Your task to perform on an android device: see sites visited before in the chrome app Image 0: 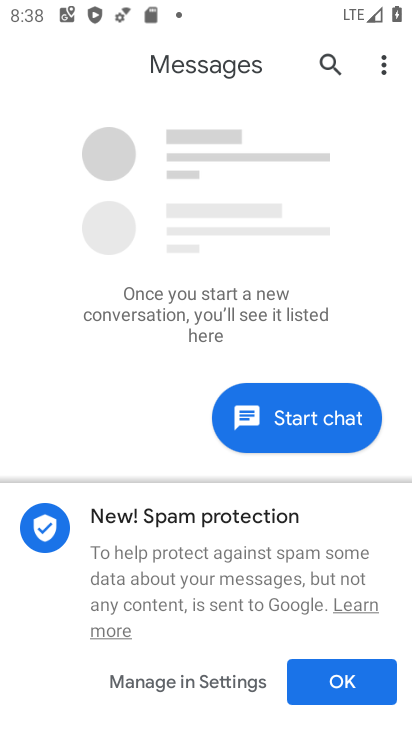
Step 0: press home button
Your task to perform on an android device: see sites visited before in the chrome app Image 1: 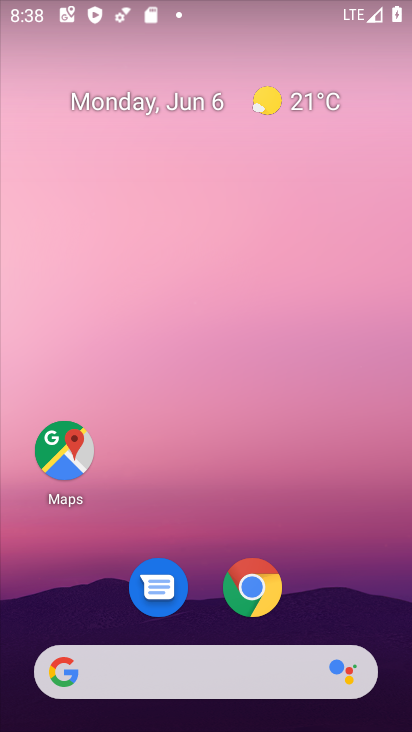
Step 1: click (272, 597)
Your task to perform on an android device: see sites visited before in the chrome app Image 2: 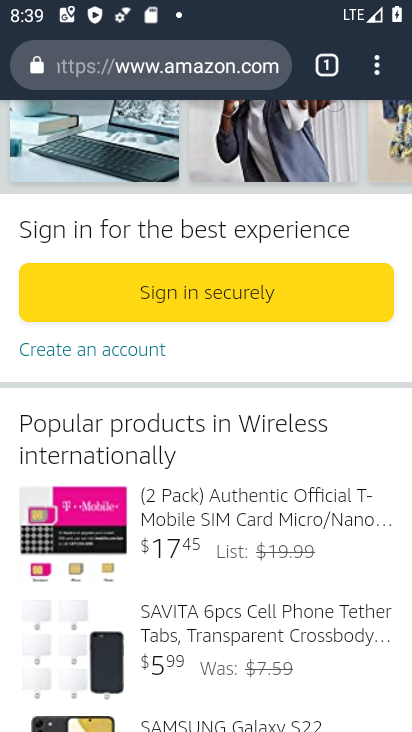
Step 2: click (380, 65)
Your task to perform on an android device: see sites visited before in the chrome app Image 3: 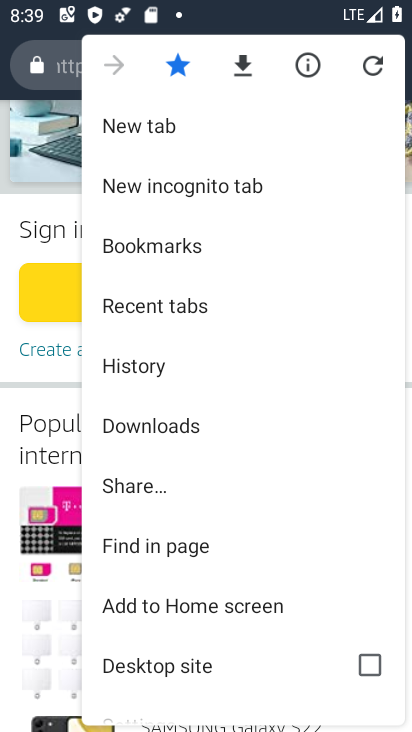
Step 3: click (182, 301)
Your task to perform on an android device: see sites visited before in the chrome app Image 4: 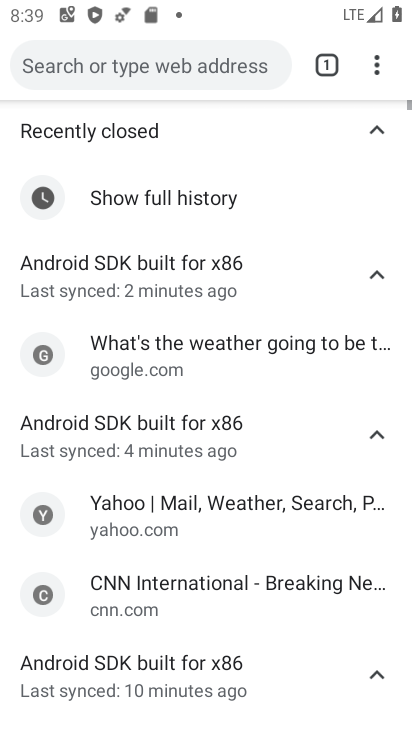
Step 4: task complete